Your task to perform on an android device: Open wifi settings Image 0: 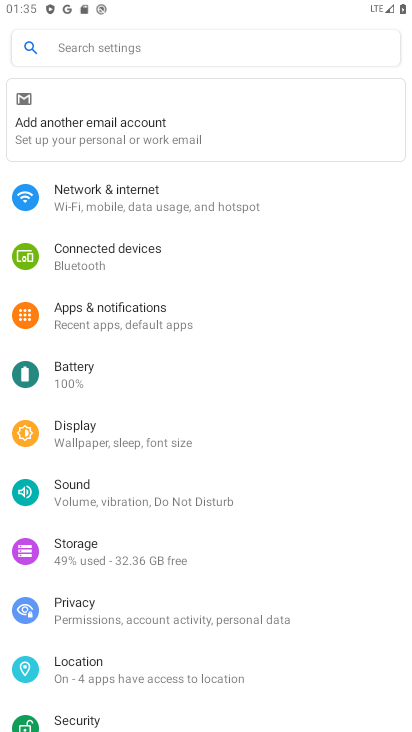
Step 0: click (178, 202)
Your task to perform on an android device: Open wifi settings Image 1: 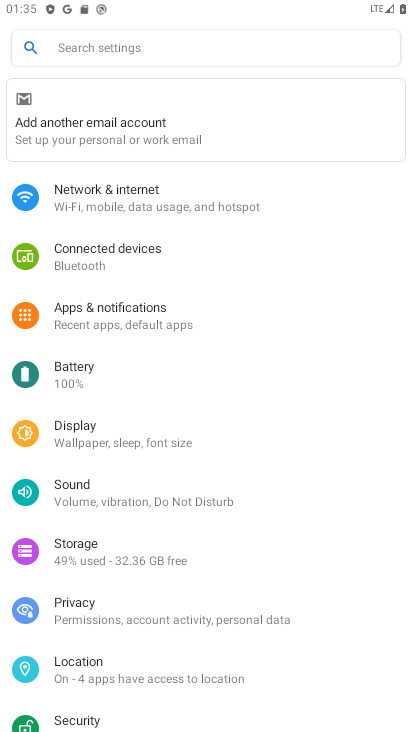
Step 1: click (178, 202)
Your task to perform on an android device: Open wifi settings Image 2: 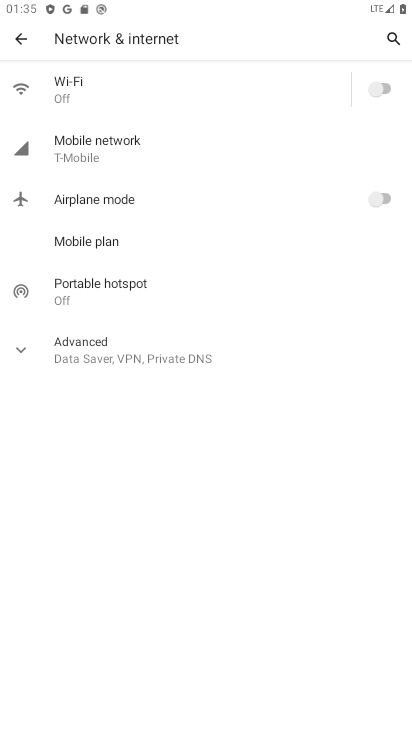
Step 2: click (183, 83)
Your task to perform on an android device: Open wifi settings Image 3: 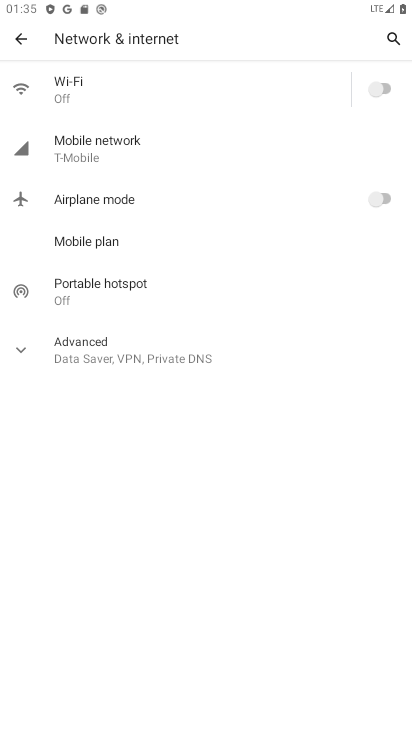
Step 3: click (183, 83)
Your task to perform on an android device: Open wifi settings Image 4: 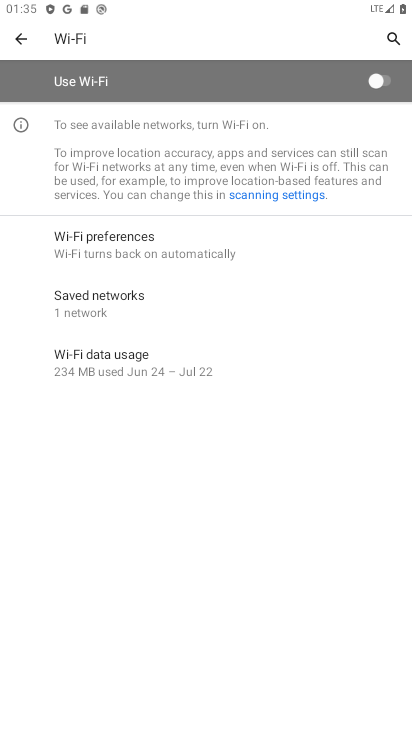
Step 4: task complete